Your task to perform on an android device: What's the weather going to be this weekend? Image 0: 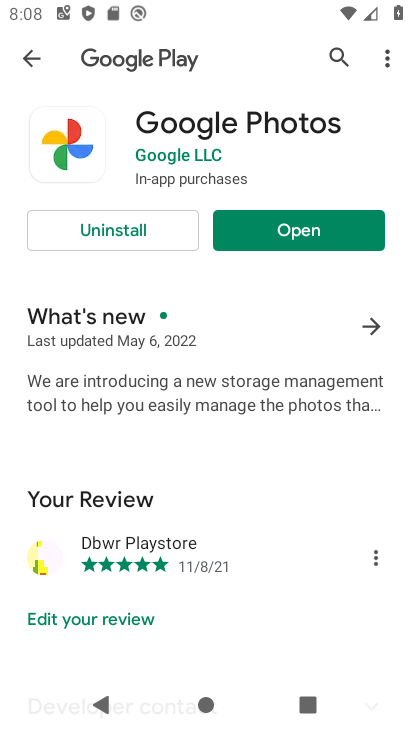
Step 0: press home button
Your task to perform on an android device: What's the weather going to be this weekend? Image 1: 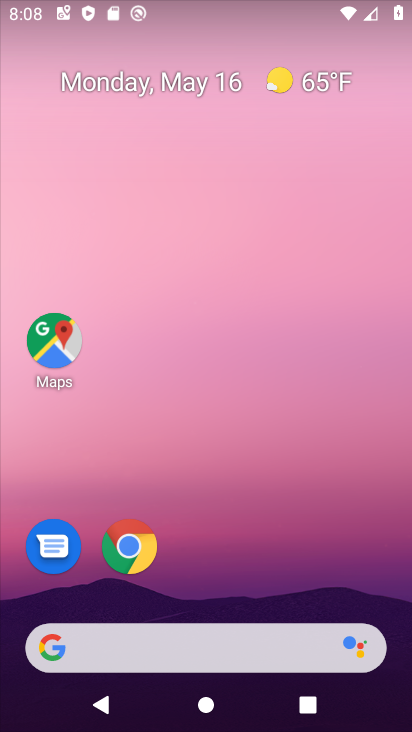
Step 1: drag from (207, 556) to (195, 17)
Your task to perform on an android device: What's the weather going to be this weekend? Image 2: 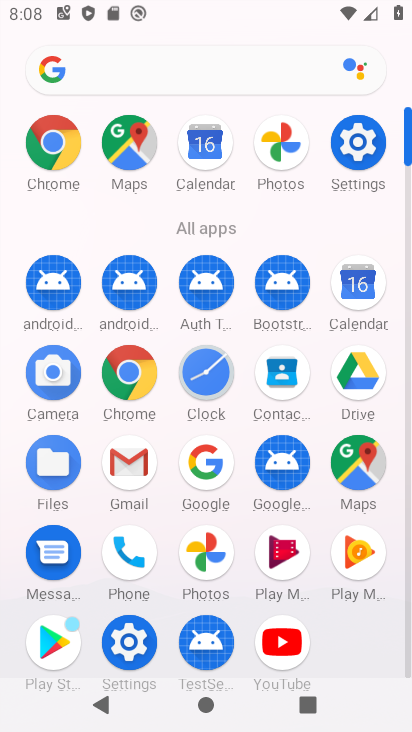
Step 2: click (190, 54)
Your task to perform on an android device: What's the weather going to be this weekend? Image 3: 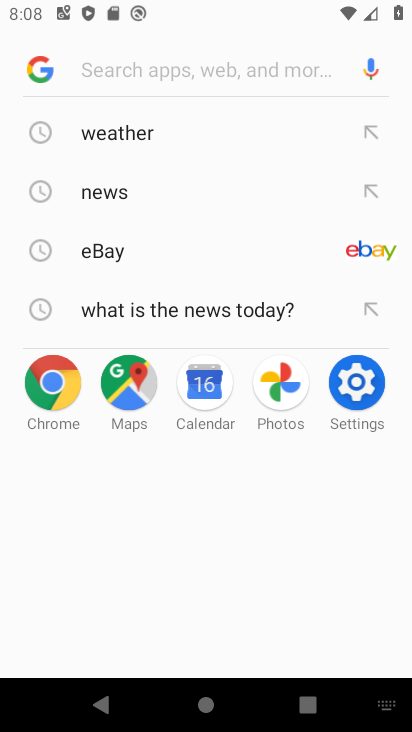
Step 3: click (165, 147)
Your task to perform on an android device: What's the weather going to be this weekend? Image 4: 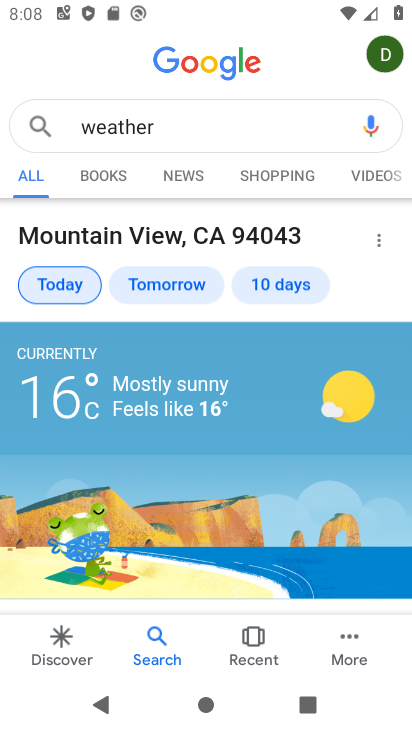
Step 4: click (280, 295)
Your task to perform on an android device: What's the weather going to be this weekend? Image 5: 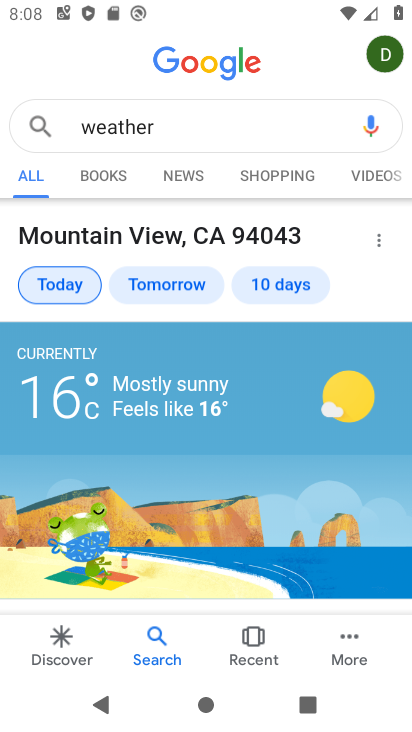
Step 5: click (288, 276)
Your task to perform on an android device: What's the weather going to be this weekend? Image 6: 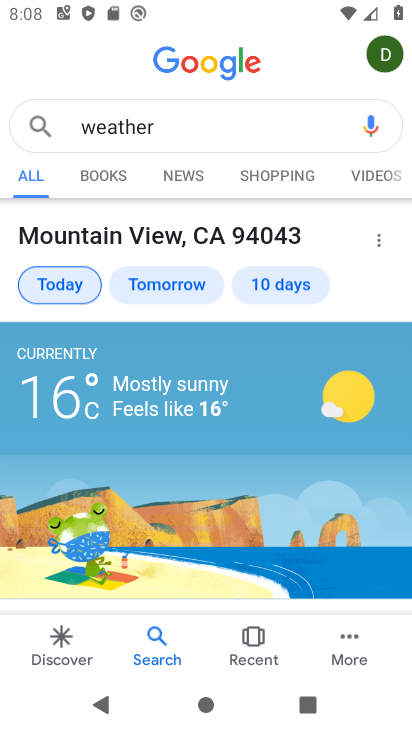
Step 6: click (288, 287)
Your task to perform on an android device: What's the weather going to be this weekend? Image 7: 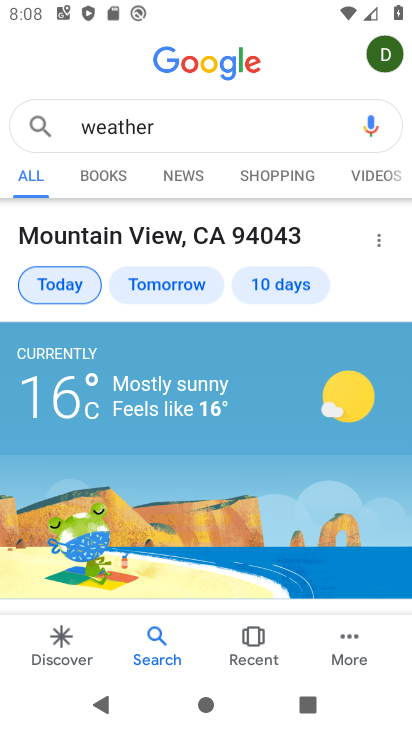
Step 7: click (288, 287)
Your task to perform on an android device: What's the weather going to be this weekend? Image 8: 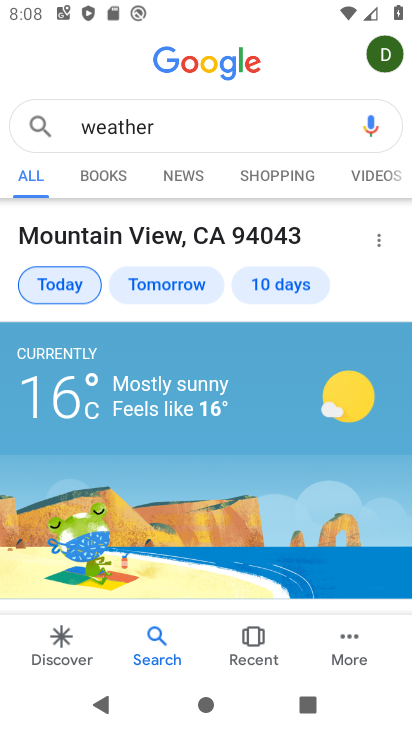
Step 8: click (288, 287)
Your task to perform on an android device: What's the weather going to be this weekend? Image 9: 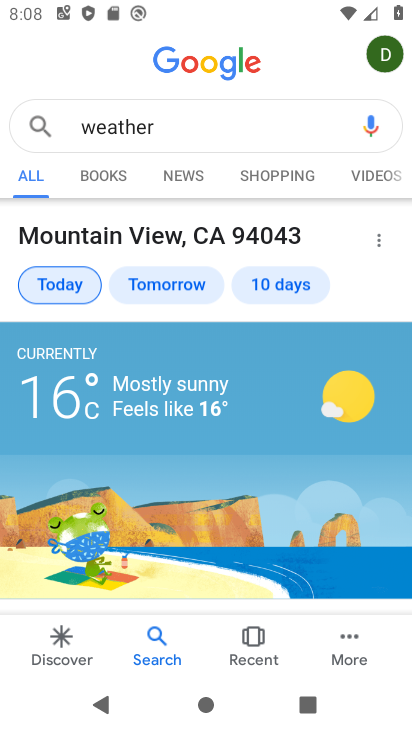
Step 9: click (288, 287)
Your task to perform on an android device: What's the weather going to be this weekend? Image 10: 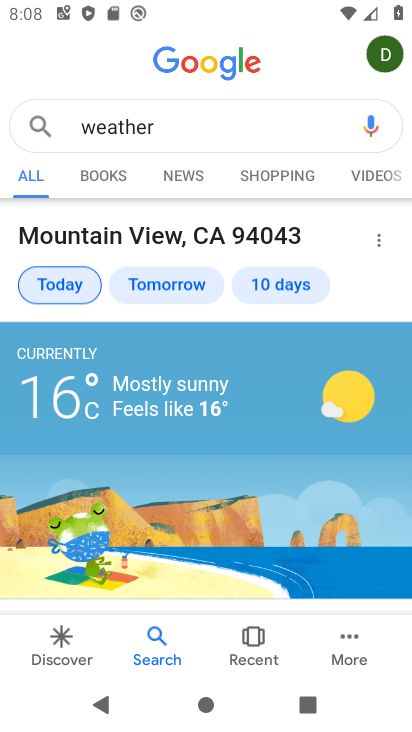
Step 10: click (288, 287)
Your task to perform on an android device: What's the weather going to be this weekend? Image 11: 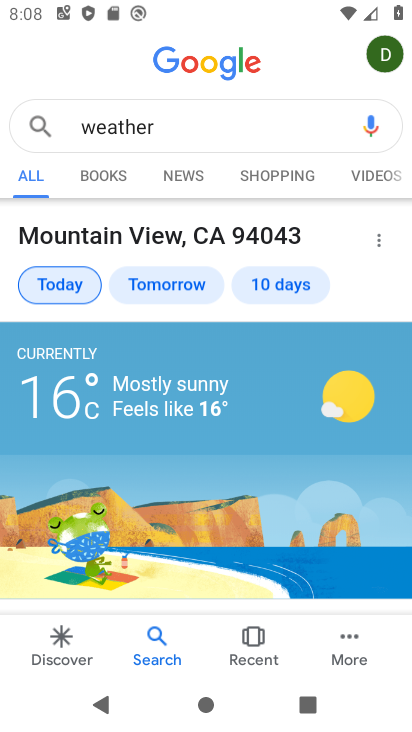
Step 11: click (217, 133)
Your task to perform on an android device: What's the weather going to be this weekend? Image 12: 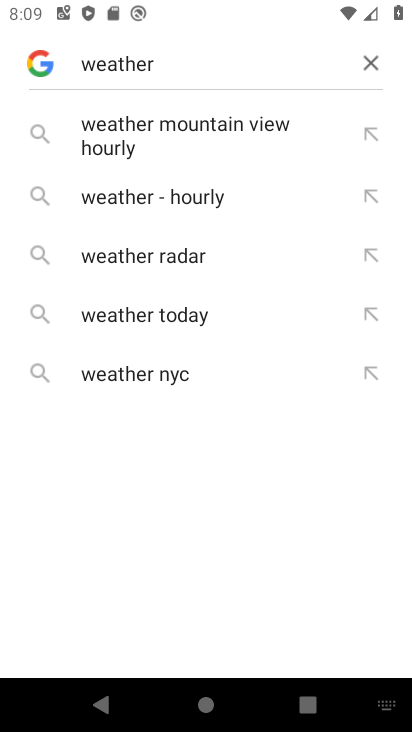
Step 12: click (160, 305)
Your task to perform on an android device: What's the weather going to be this weekend? Image 13: 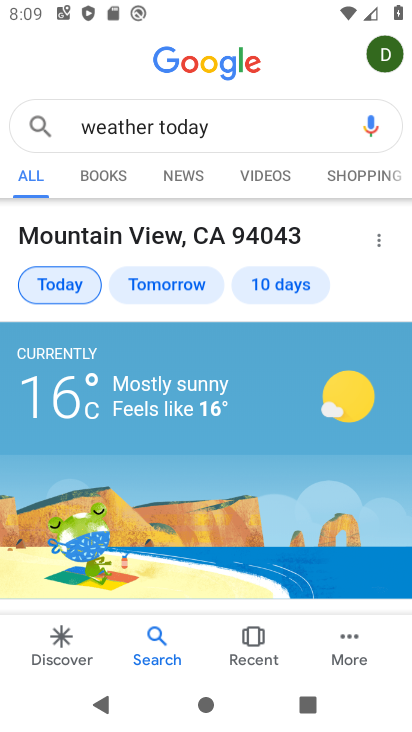
Step 13: click (271, 285)
Your task to perform on an android device: What's the weather going to be this weekend? Image 14: 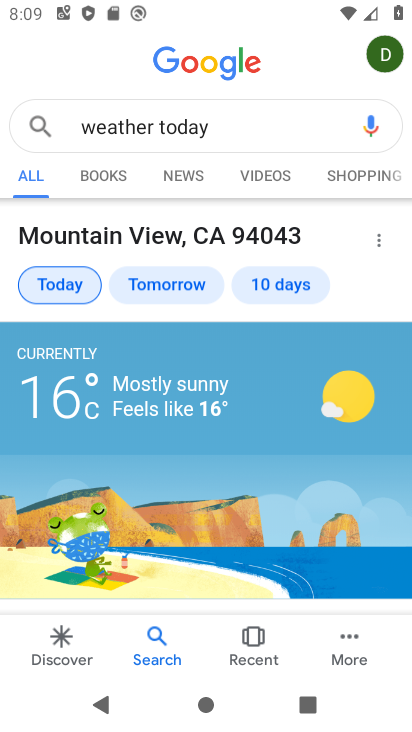
Step 14: click (271, 285)
Your task to perform on an android device: What's the weather going to be this weekend? Image 15: 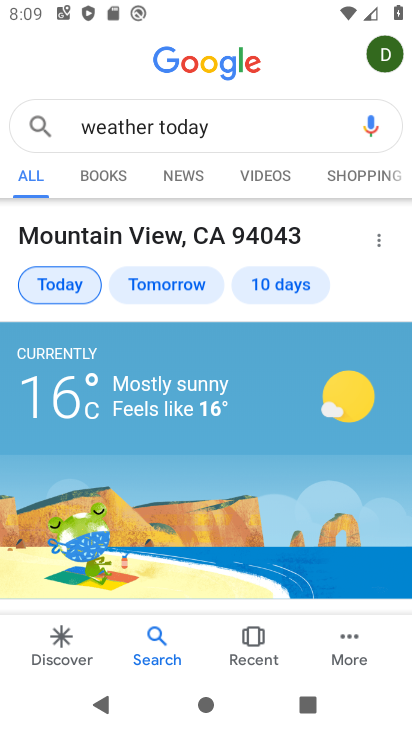
Step 15: task complete